Your task to perform on an android device: create a new album in the google photos Image 0: 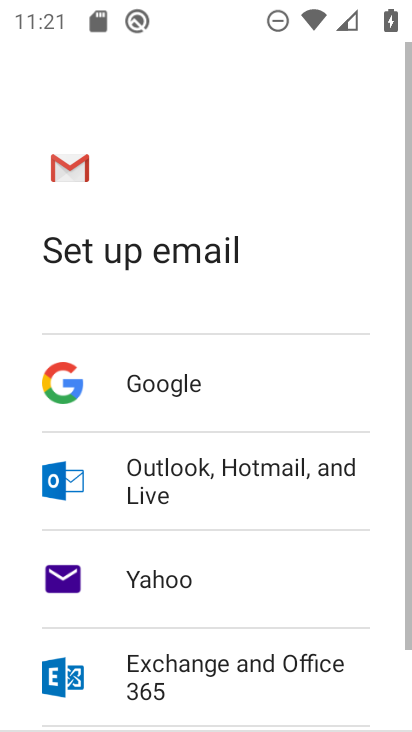
Step 0: press home button
Your task to perform on an android device: create a new album in the google photos Image 1: 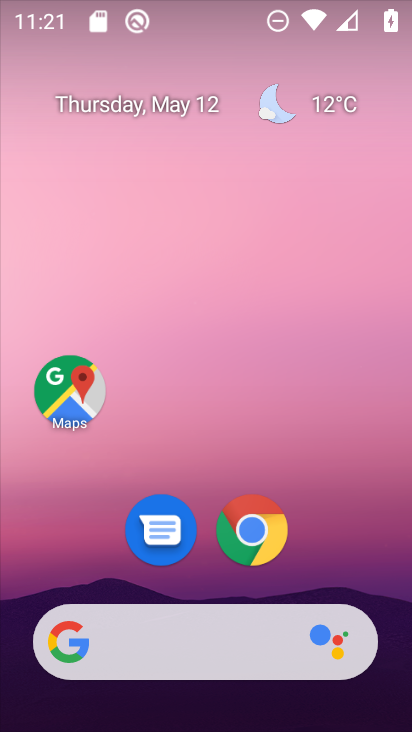
Step 1: drag from (234, 615) to (355, 126)
Your task to perform on an android device: create a new album in the google photos Image 2: 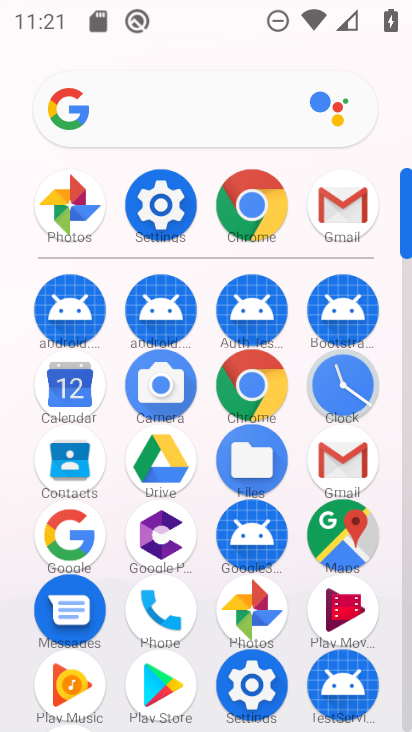
Step 2: click (248, 601)
Your task to perform on an android device: create a new album in the google photos Image 3: 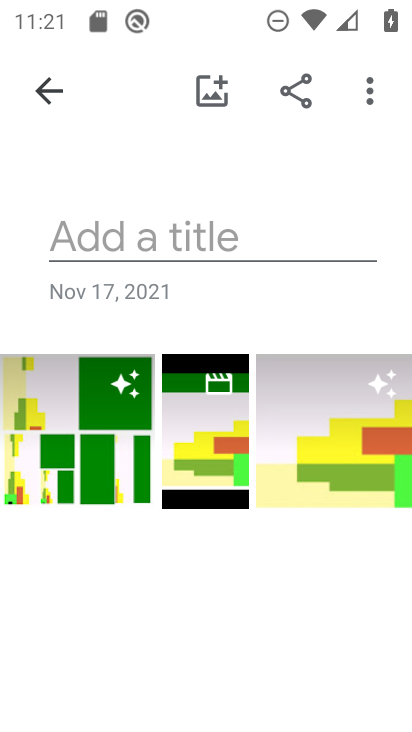
Step 3: click (58, 86)
Your task to perform on an android device: create a new album in the google photos Image 4: 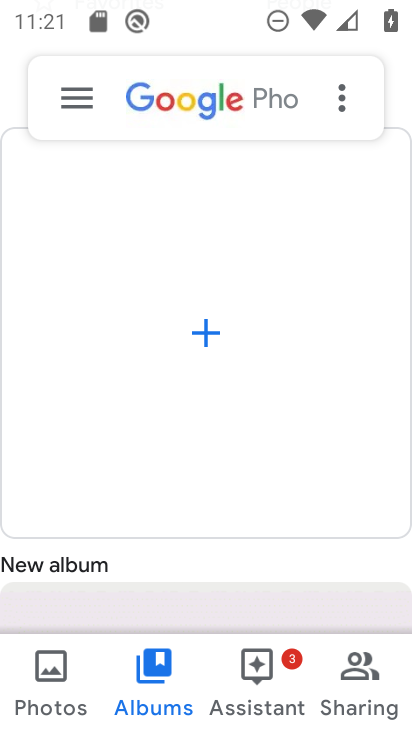
Step 4: click (200, 323)
Your task to perform on an android device: create a new album in the google photos Image 5: 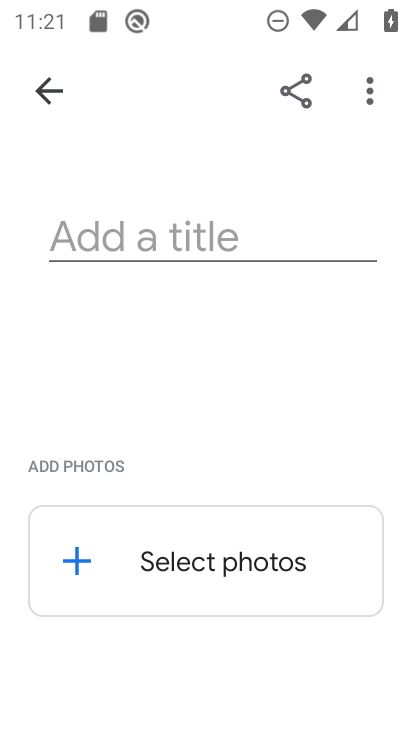
Step 5: click (174, 576)
Your task to perform on an android device: create a new album in the google photos Image 6: 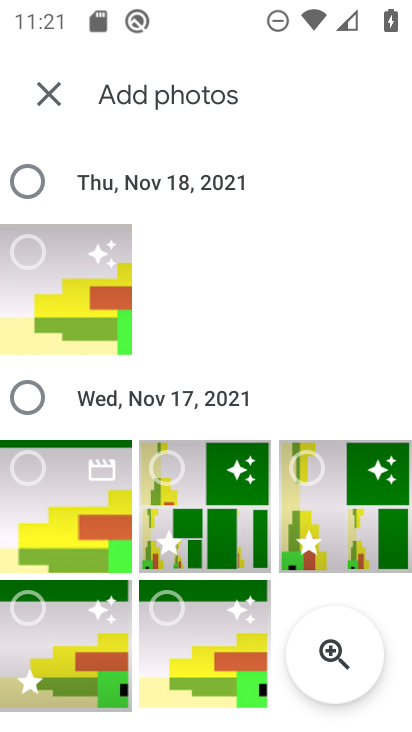
Step 6: click (77, 250)
Your task to perform on an android device: create a new album in the google photos Image 7: 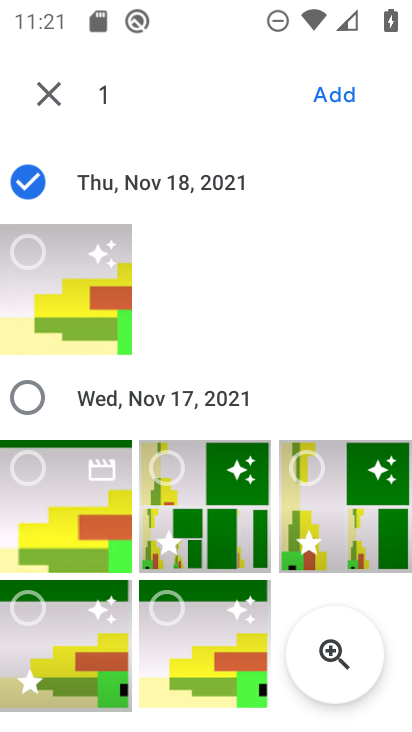
Step 7: click (74, 460)
Your task to perform on an android device: create a new album in the google photos Image 8: 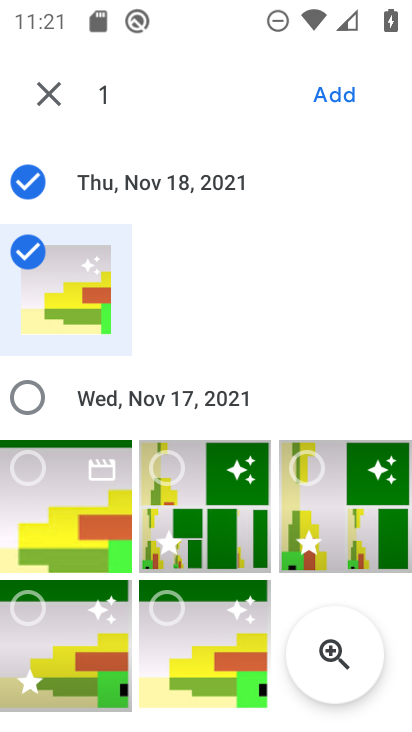
Step 8: click (163, 468)
Your task to perform on an android device: create a new album in the google photos Image 9: 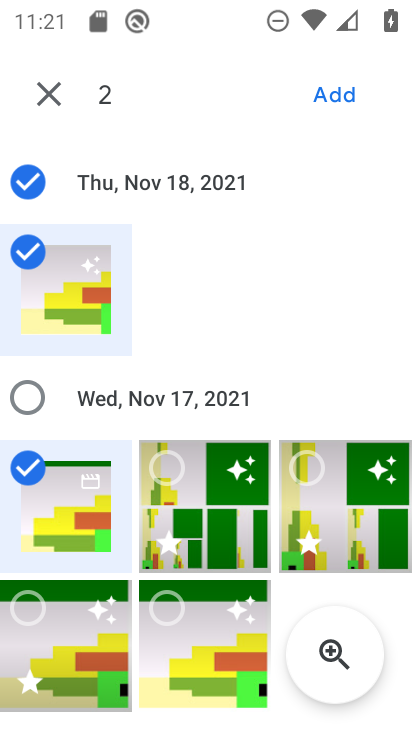
Step 9: click (310, 484)
Your task to perform on an android device: create a new album in the google photos Image 10: 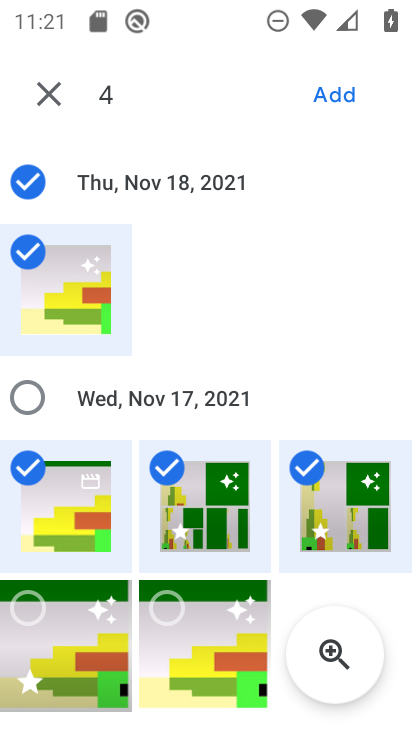
Step 10: click (324, 96)
Your task to perform on an android device: create a new album in the google photos Image 11: 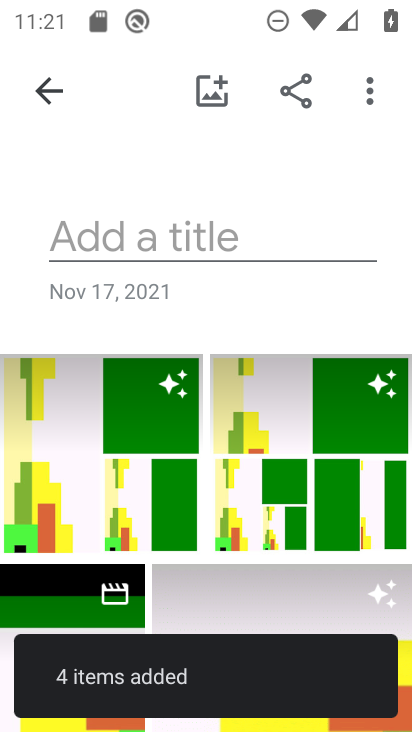
Step 11: task complete